Your task to perform on an android device: check out phone information Image 0: 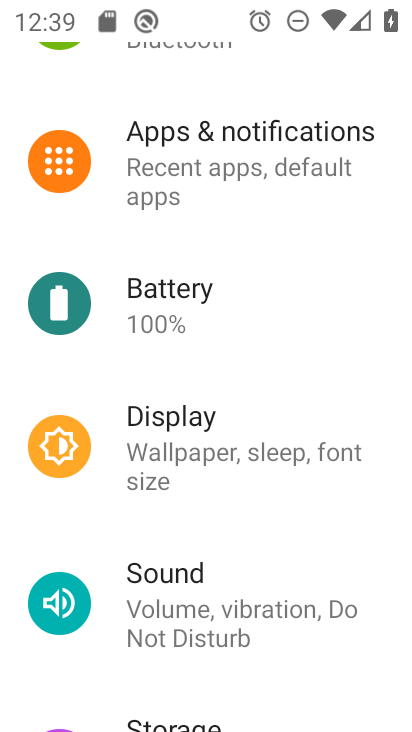
Step 0: drag from (265, 635) to (218, 60)
Your task to perform on an android device: check out phone information Image 1: 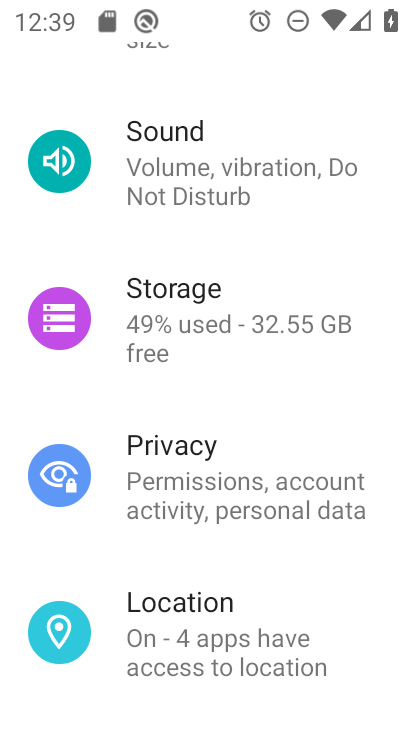
Step 1: drag from (257, 588) to (224, 89)
Your task to perform on an android device: check out phone information Image 2: 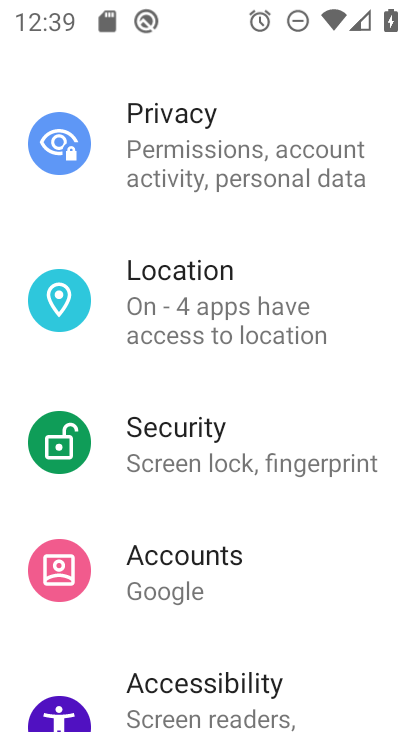
Step 2: drag from (275, 502) to (250, 49)
Your task to perform on an android device: check out phone information Image 3: 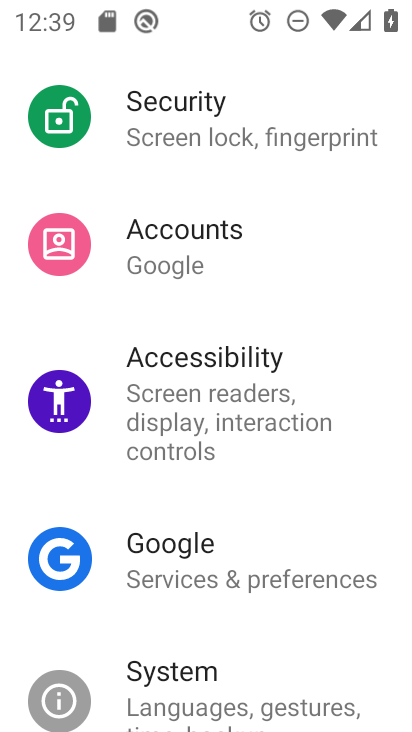
Step 3: drag from (295, 645) to (224, 79)
Your task to perform on an android device: check out phone information Image 4: 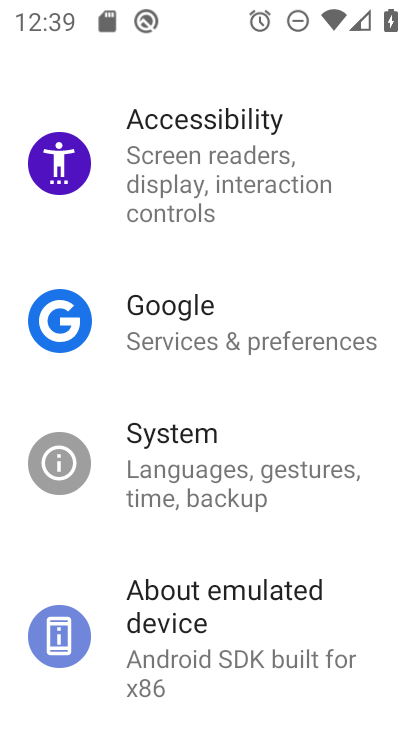
Step 4: drag from (291, 626) to (232, 166)
Your task to perform on an android device: check out phone information Image 5: 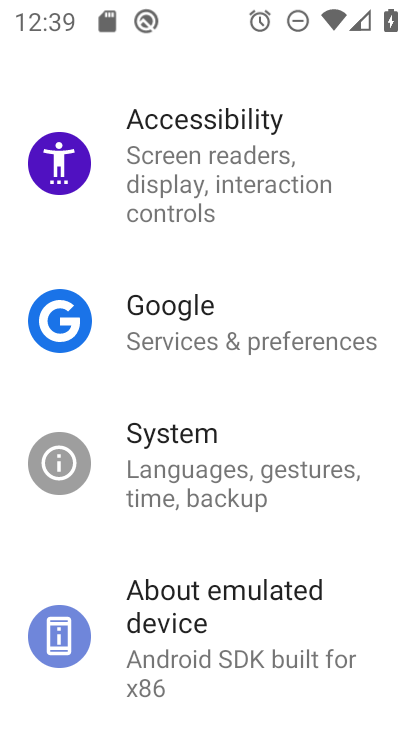
Step 5: click (266, 613)
Your task to perform on an android device: check out phone information Image 6: 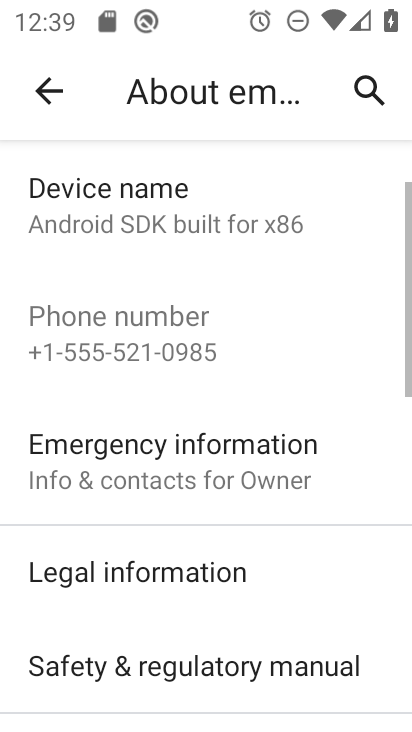
Step 6: drag from (272, 611) to (272, 277)
Your task to perform on an android device: check out phone information Image 7: 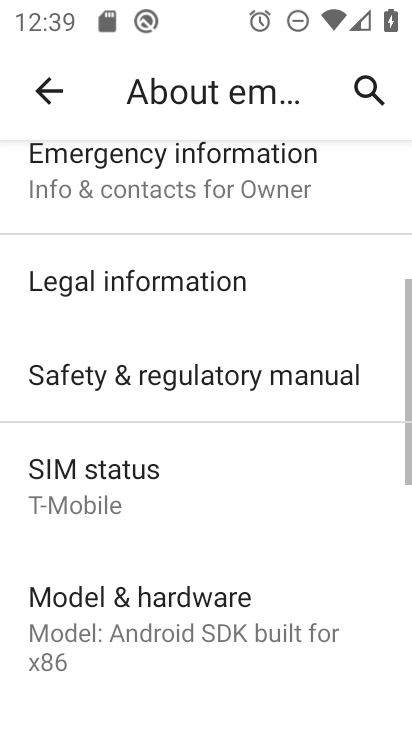
Step 7: click (213, 604)
Your task to perform on an android device: check out phone information Image 8: 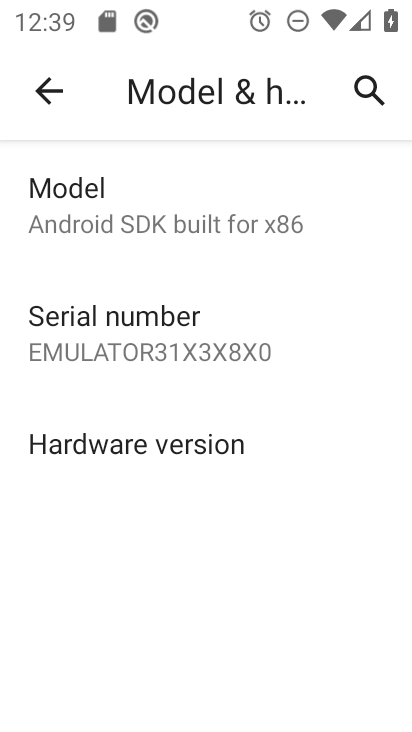
Step 8: task complete